Your task to perform on an android device: open sync settings in chrome Image 0: 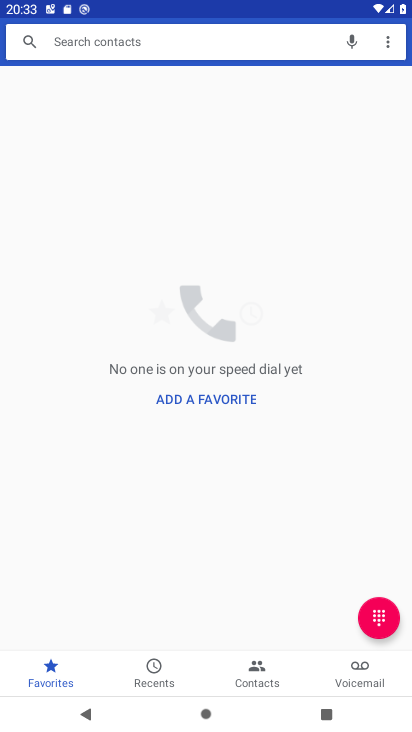
Step 0: press home button
Your task to perform on an android device: open sync settings in chrome Image 1: 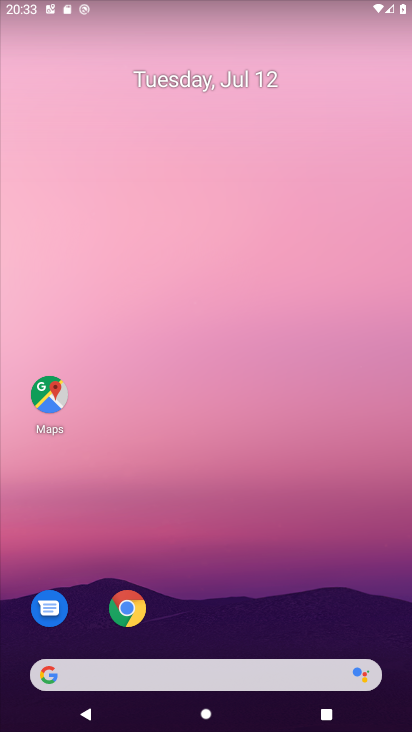
Step 1: click (125, 607)
Your task to perform on an android device: open sync settings in chrome Image 2: 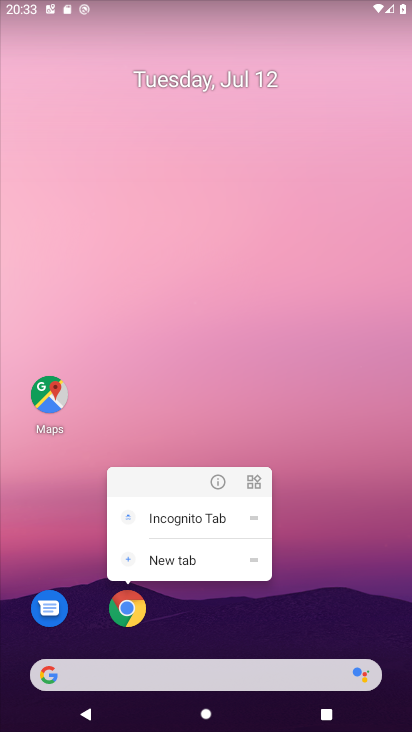
Step 2: click (125, 607)
Your task to perform on an android device: open sync settings in chrome Image 3: 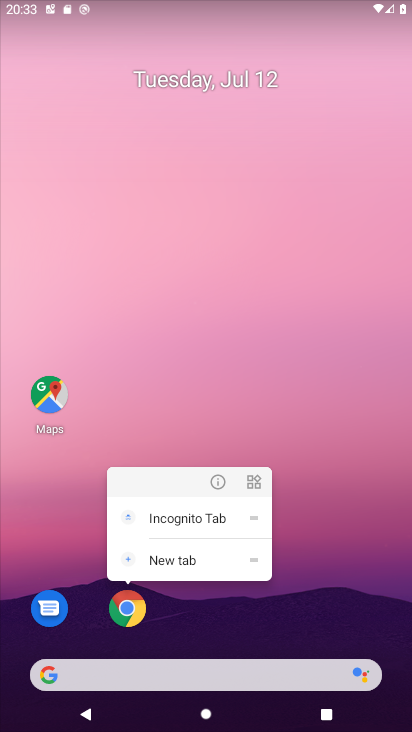
Step 3: click (125, 607)
Your task to perform on an android device: open sync settings in chrome Image 4: 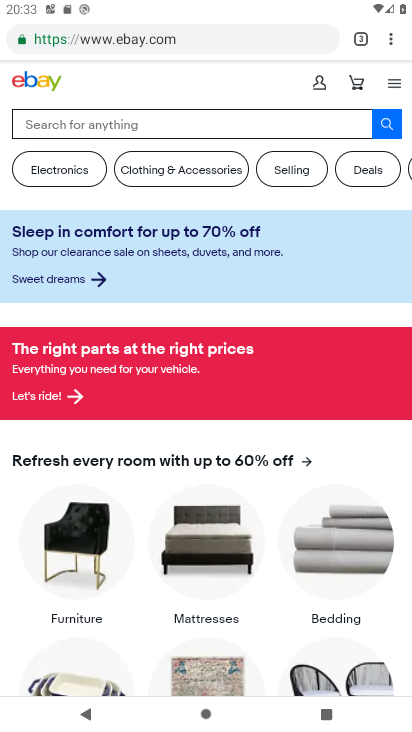
Step 4: drag from (390, 45) to (272, 465)
Your task to perform on an android device: open sync settings in chrome Image 5: 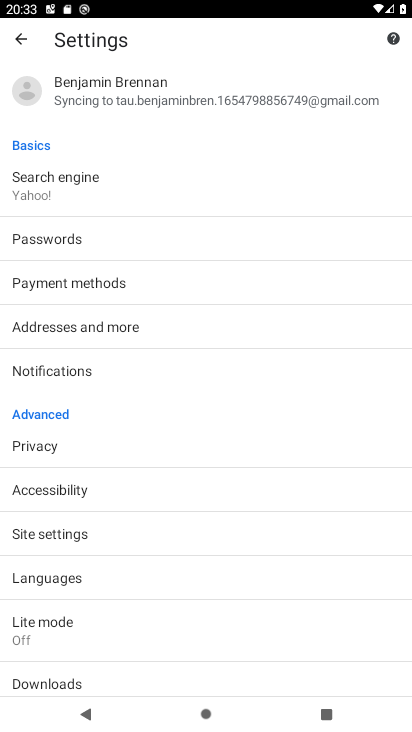
Step 5: click (175, 102)
Your task to perform on an android device: open sync settings in chrome Image 6: 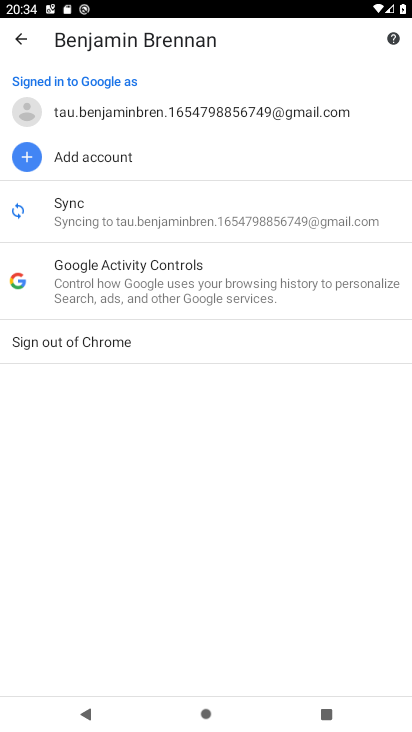
Step 6: click (201, 232)
Your task to perform on an android device: open sync settings in chrome Image 7: 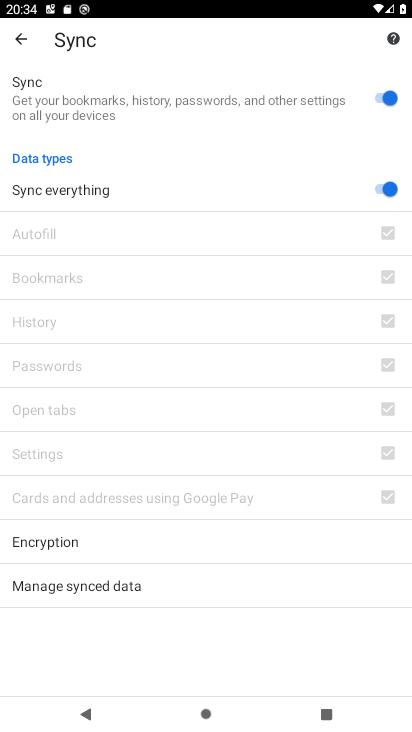
Step 7: task complete